Your task to perform on an android device: allow cookies in the chrome app Image 0: 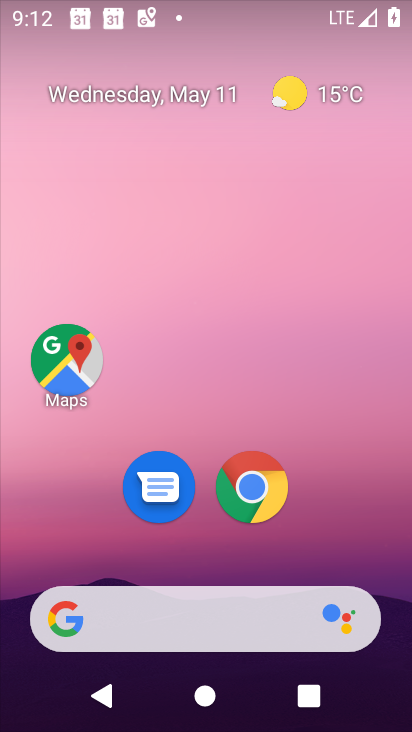
Step 0: drag from (288, 633) to (308, 208)
Your task to perform on an android device: allow cookies in the chrome app Image 1: 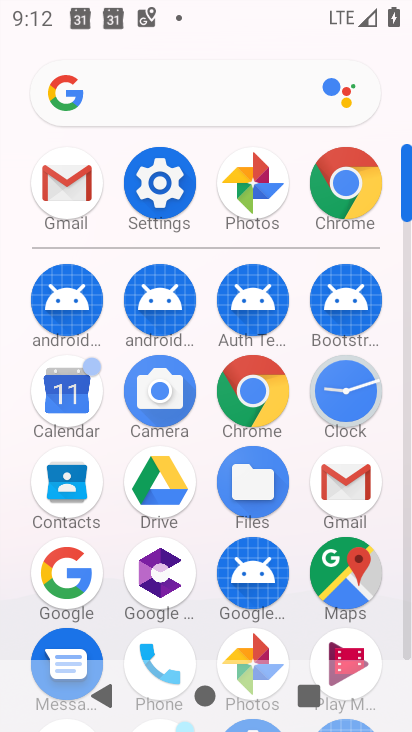
Step 1: click (264, 387)
Your task to perform on an android device: allow cookies in the chrome app Image 2: 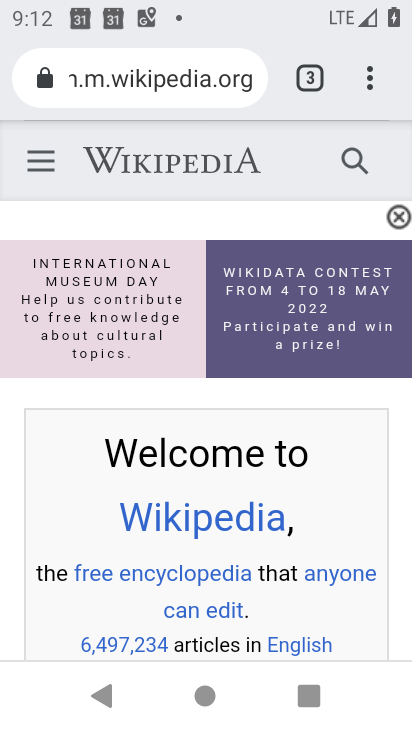
Step 2: click (365, 102)
Your task to perform on an android device: allow cookies in the chrome app Image 3: 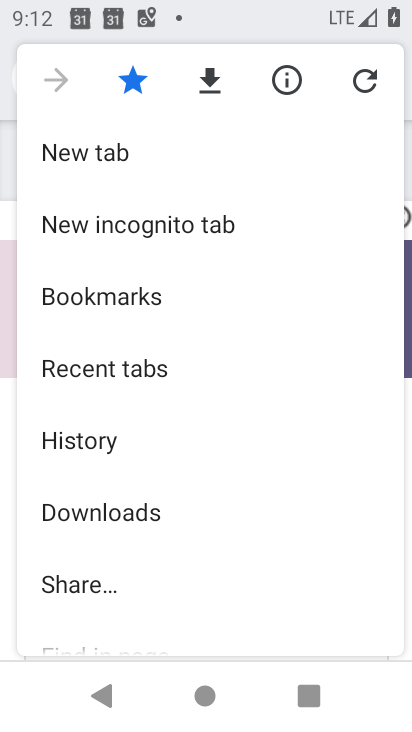
Step 3: drag from (136, 585) to (237, 335)
Your task to perform on an android device: allow cookies in the chrome app Image 4: 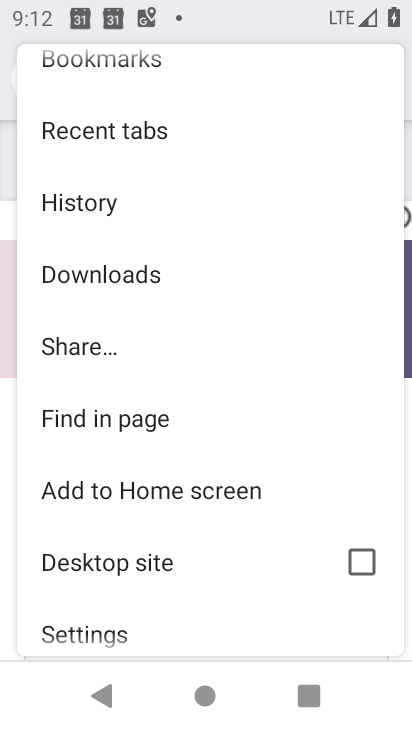
Step 4: drag from (156, 576) to (175, 514)
Your task to perform on an android device: allow cookies in the chrome app Image 5: 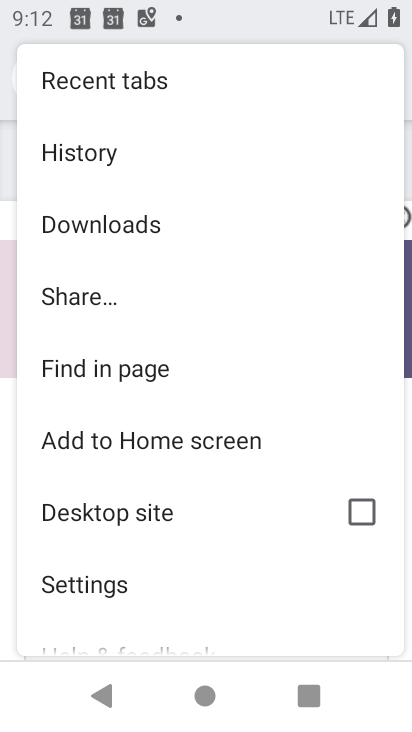
Step 5: click (114, 583)
Your task to perform on an android device: allow cookies in the chrome app Image 6: 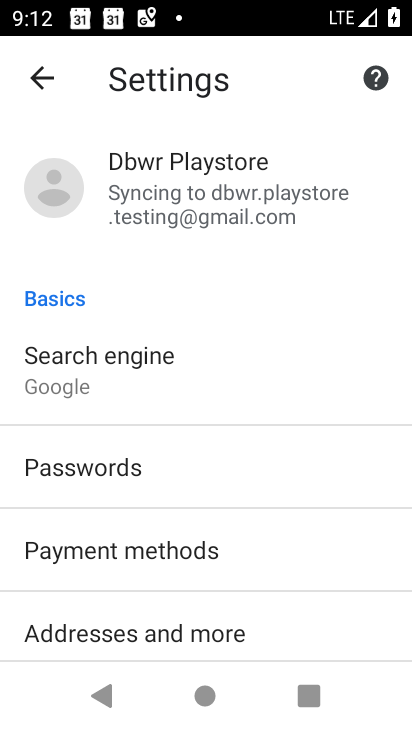
Step 6: drag from (203, 593) to (271, 400)
Your task to perform on an android device: allow cookies in the chrome app Image 7: 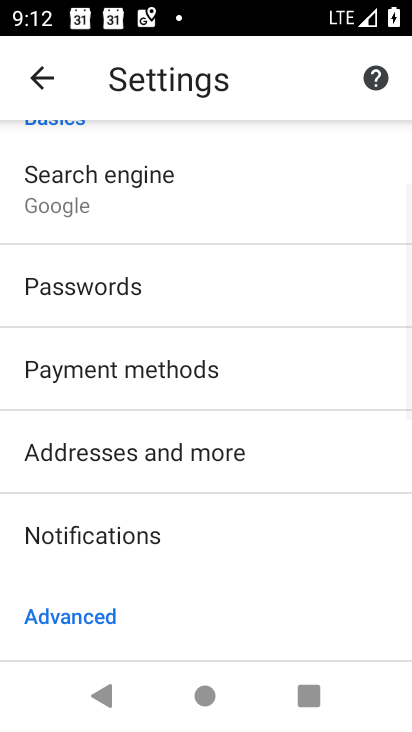
Step 7: drag from (200, 588) to (292, 349)
Your task to perform on an android device: allow cookies in the chrome app Image 8: 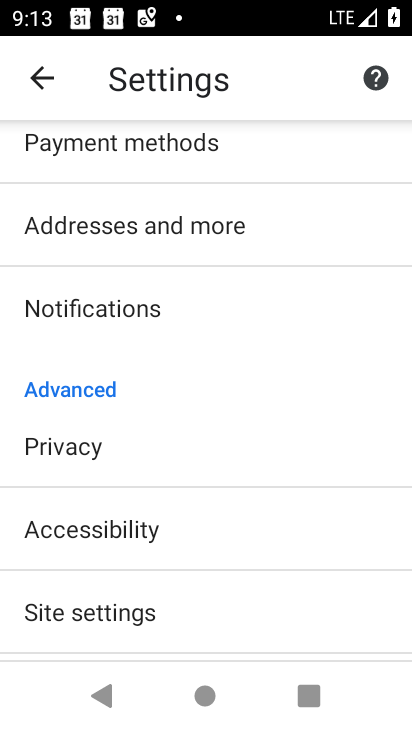
Step 8: click (104, 612)
Your task to perform on an android device: allow cookies in the chrome app Image 9: 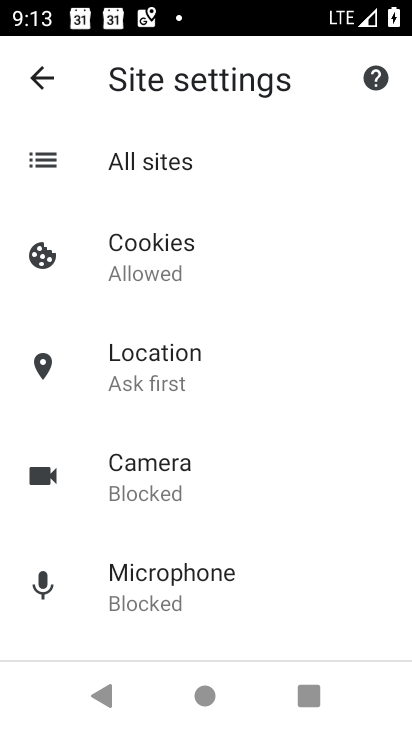
Step 9: drag from (144, 574) to (157, 516)
Your task to perform on an android device: allow cookies in the chrome app Image 10: 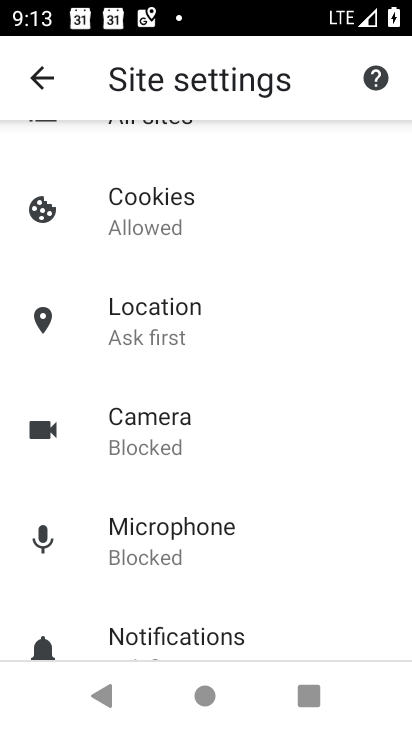
Step 10: click (128, 195)
Your task to perform on an android device: allow cookies in the chrome app Image 11: 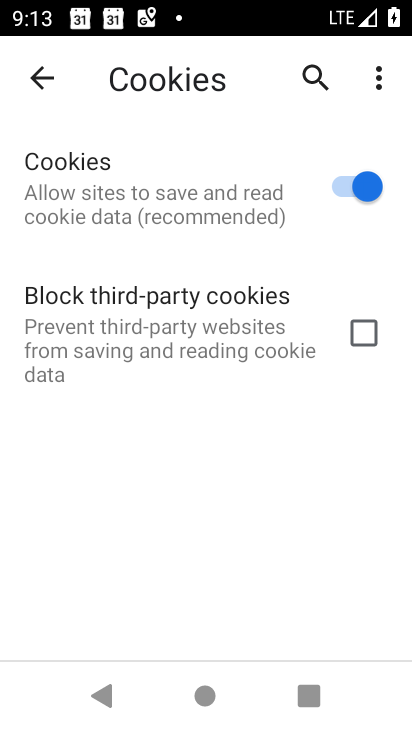
Step 11: click (127, 196)
Your task to perform on an android device: allow cookies in the chrome app Image 12: 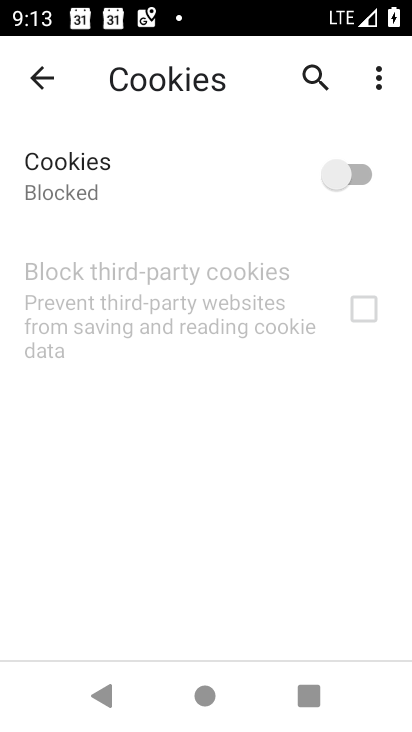
Step 12: click (301, 186)
Your task to perform on an android device: allow cookies in the chrome app Image 13: 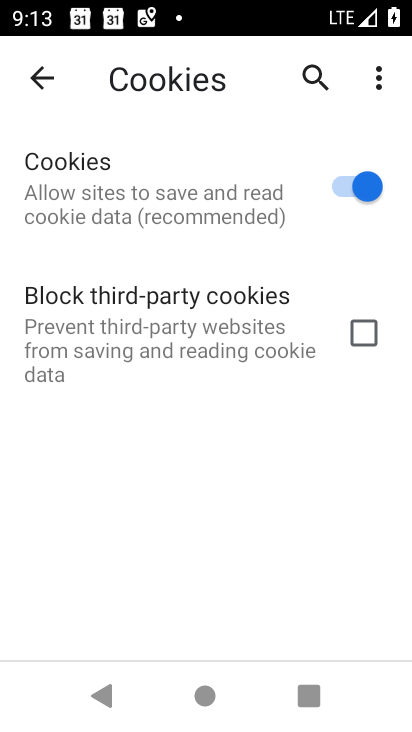
Step 13: task complete